Your task to perform on an android device: change keyboard looks Image 0: 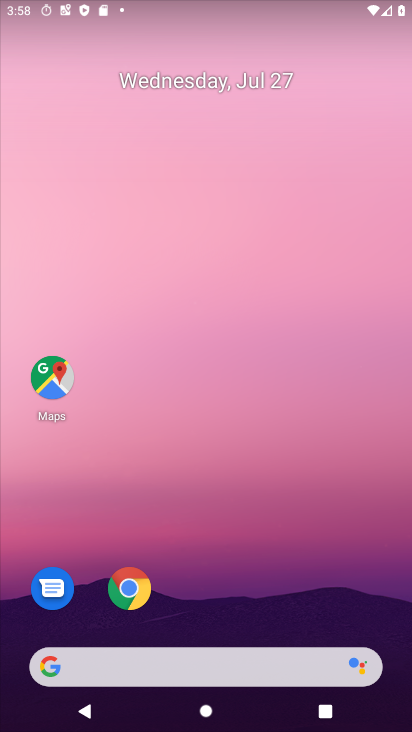
Step 0: press home button
Your task to perform on an android device: change keyboard looks Image 1: 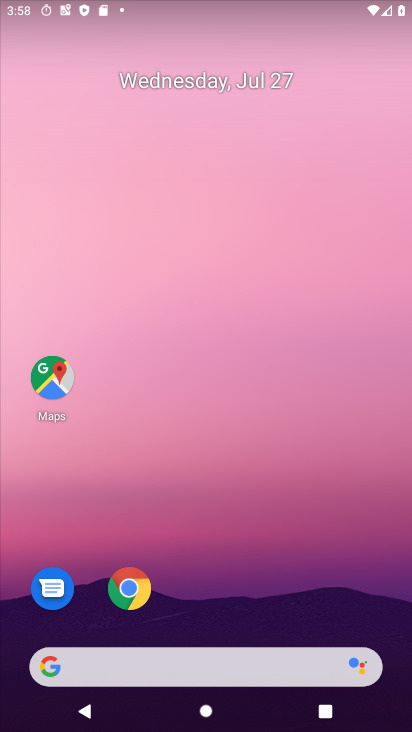
Step 1: drag from (296, 612) to (232, 79)
Your task to perform on an android device: change keyboard looks Image 2: 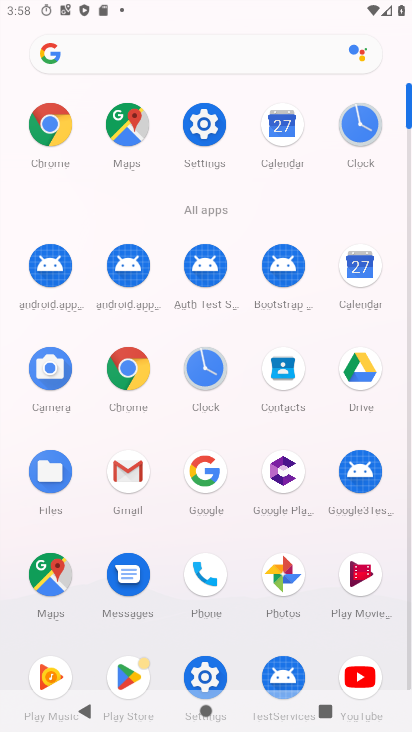
Step 2: click (207, 126)
Your task to perform on an android device: change keyboard looks Image 3: 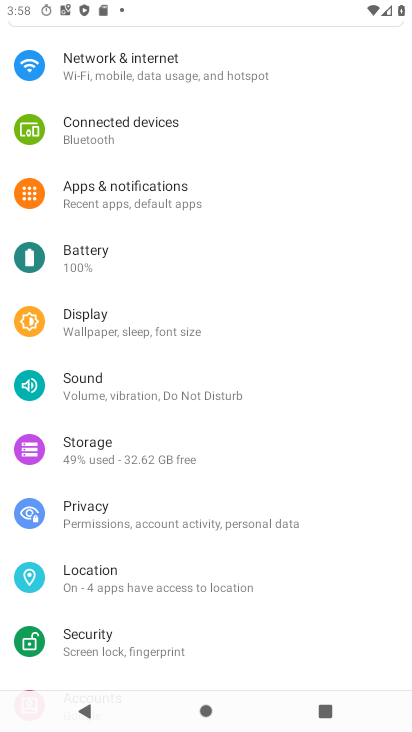
Step 3: drag from (341, 643) to (324, 182)
Your task to perform on an android device: change keyboard looks Image 4: 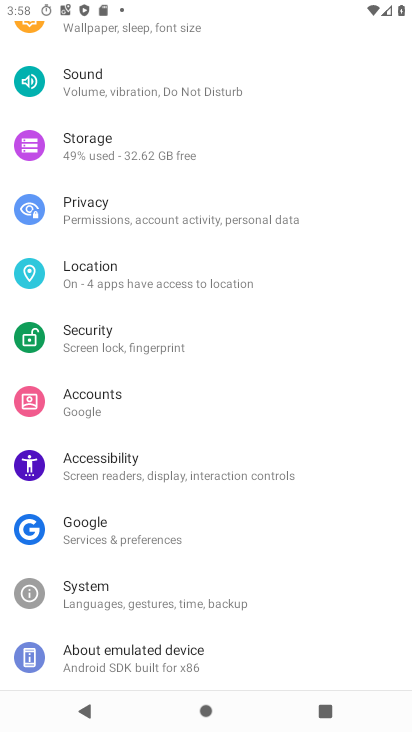
Step 4: click (113, 593)
Your task to perform on an android device: change keyboard looks Image 5: 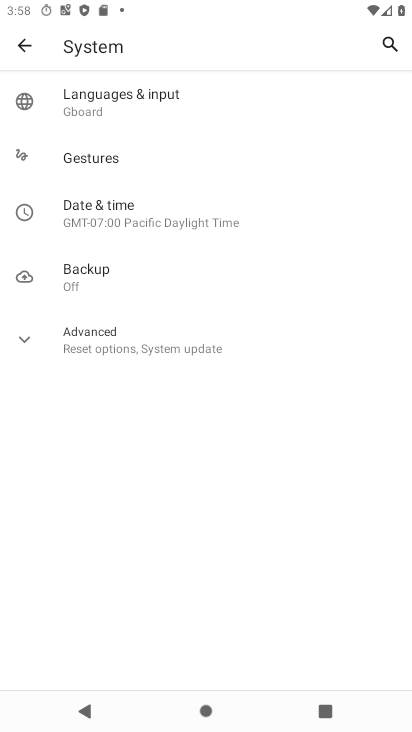
Step 5: click (83, 103)
Your task to perform on an android device: change keyboard looks Image 6: 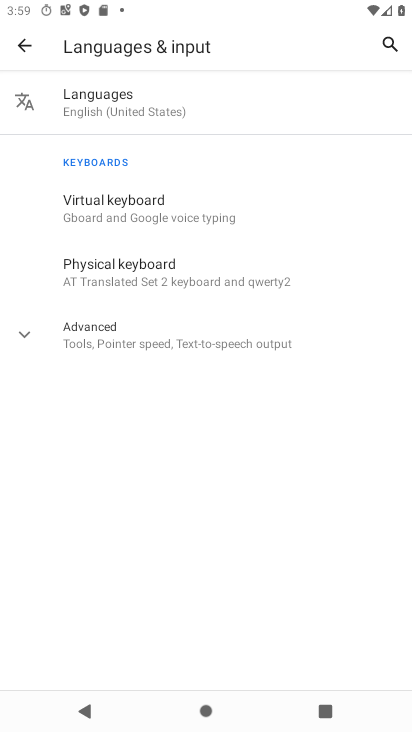
Step 6: click (103, 209)
Your task to perform on an android device: change keyboard looks Image 7: 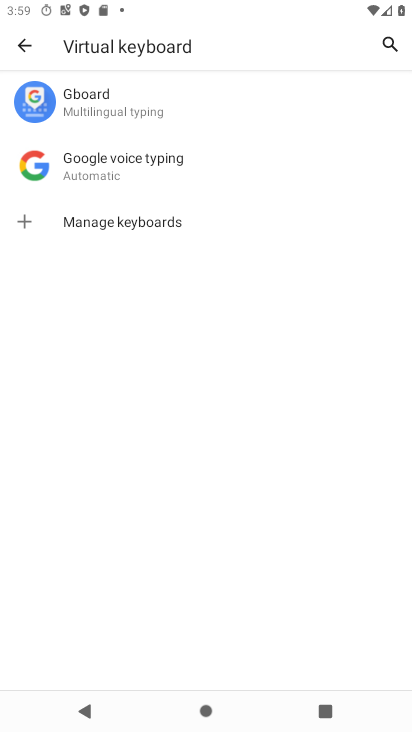
Step 7: click (88, 92)
Your task to perform on an android device: change keyboard looks Image 8: 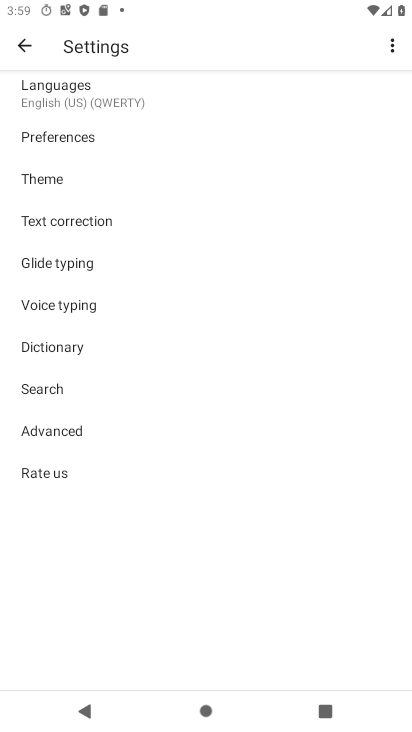
Step 8: click (43, 187)
Your task to perform on an android device: change keyboard looks Image 9: 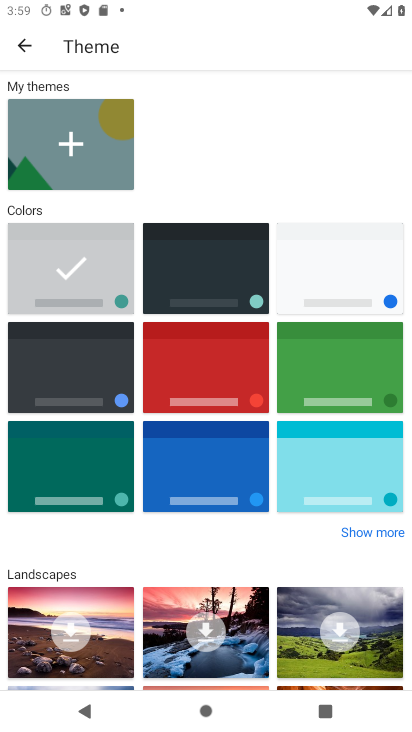
Step 9: click (208, 272)
Your task to perform on an android device: change keyboard looks Image 10: 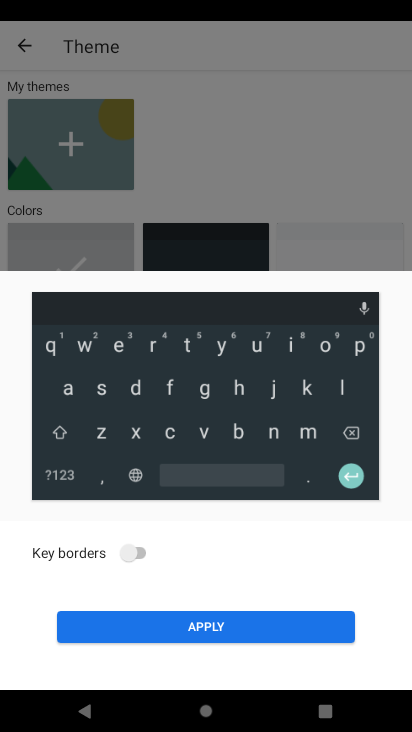
Step 10: click (126, 625)
Your task to perform on an android device: change keyboard looks Image 11: 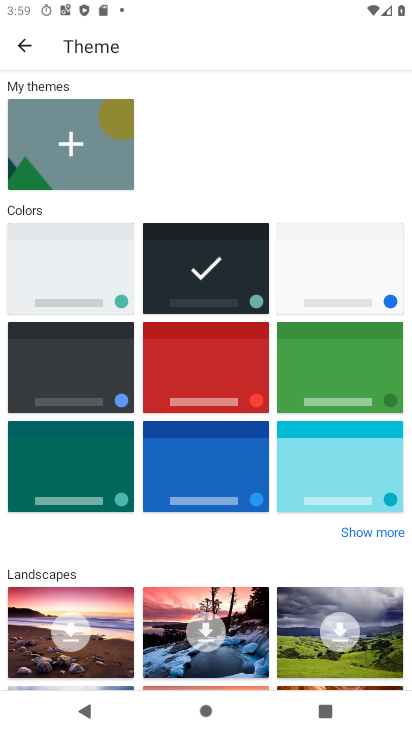
Step 11: task complete